Your task to perform on an android device: refresh tabs in the chrome app Image 0: 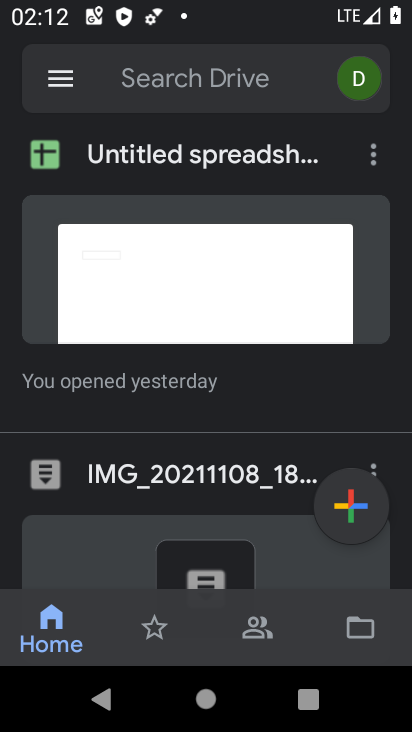
Step 0: press home button
Your task to perform on an android device: refresh tabs in the chrome app Image 1: 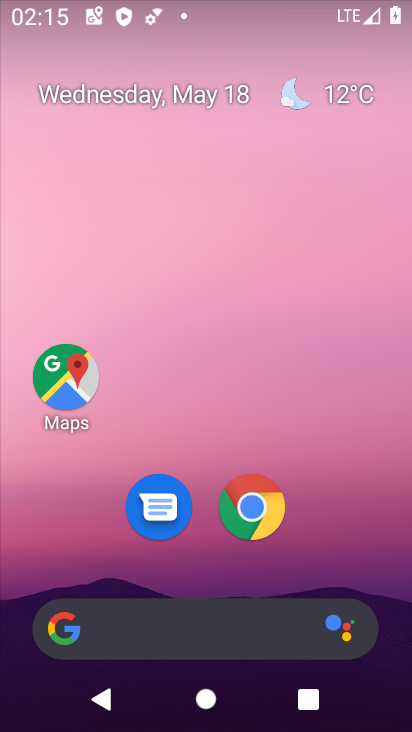
Step 1: click (242, 523)
Your task to perform on an android device: refresh tabs in the chrome app Image 2: 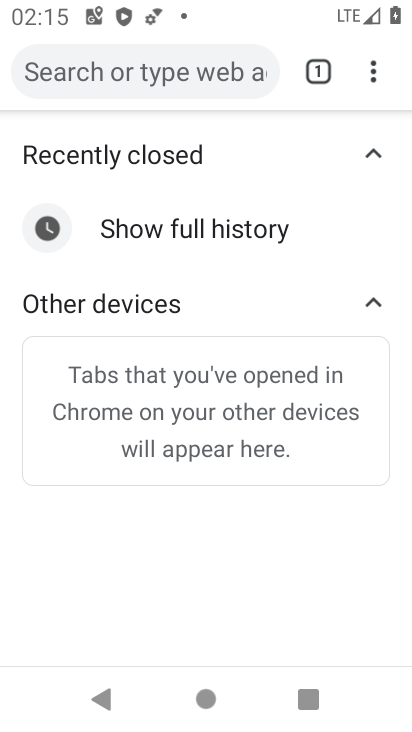
Step 2: click (371, 73)
Your task to perform on an android device: refresh tabs in the chrome app Image 3: 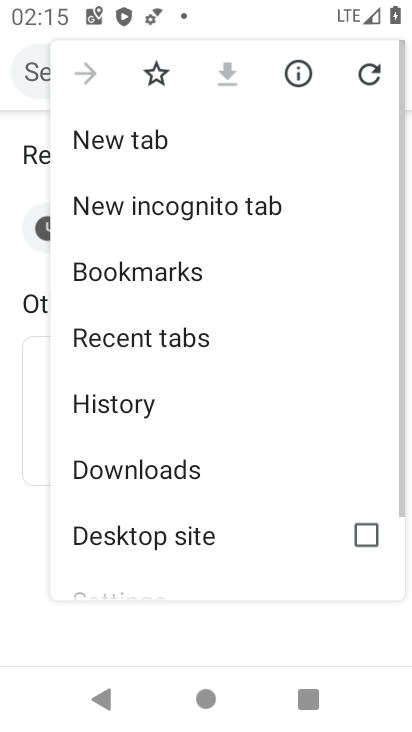
Step 3: click (359, 78)
Your task to perform on an android device: refresh tabs in the chrome app Image 4: 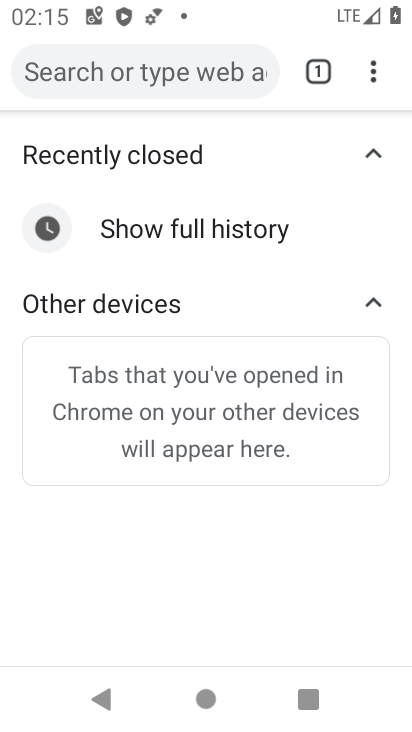
Step 4: task complete